Your task to perform on an android device: Go to accessibility settings Image 0: 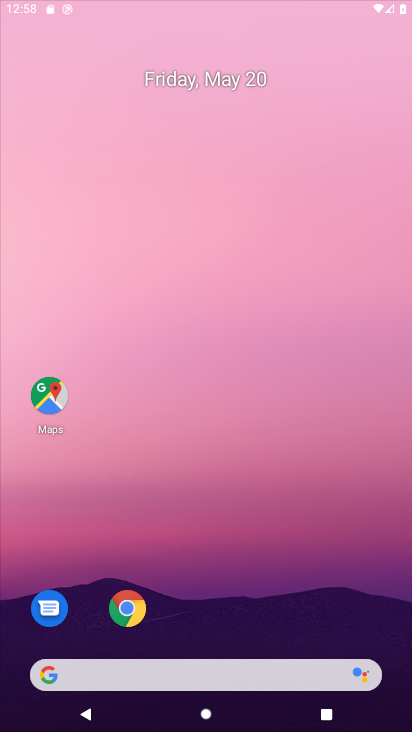
Step 0: click (122, 609)
Your task to perform on an android device: Go to accessibility settings Image 1: 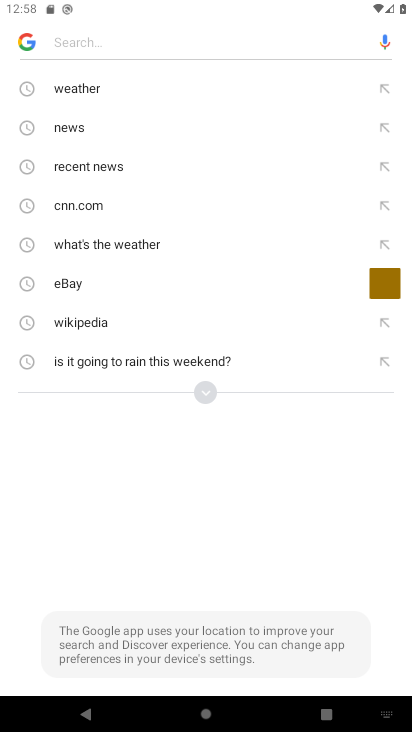
Step 1: press home button
Your task to perform on an android device: Go to accessibility settings Image 2: 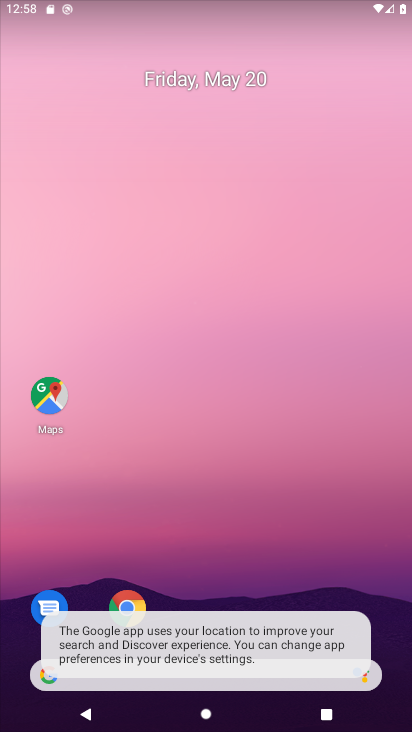
Step 2: drag from (285, 444) to (308, 123)
Your task to perform on an android device: Go to accessibility settings Image 3: 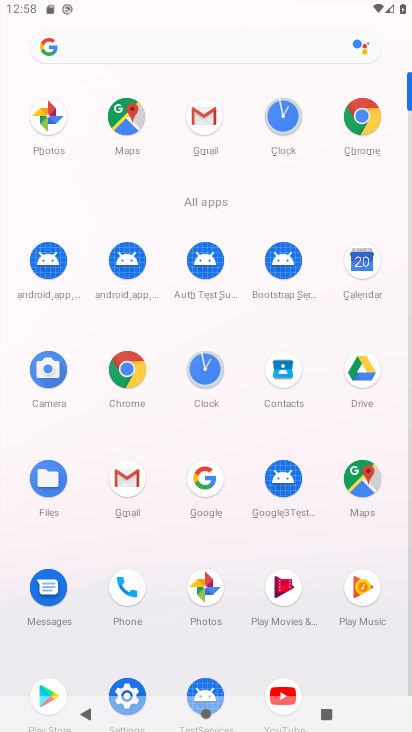
Step 3: click (138, 684)
Your task to perform on an android device: Go to accessibility settings Image 4: 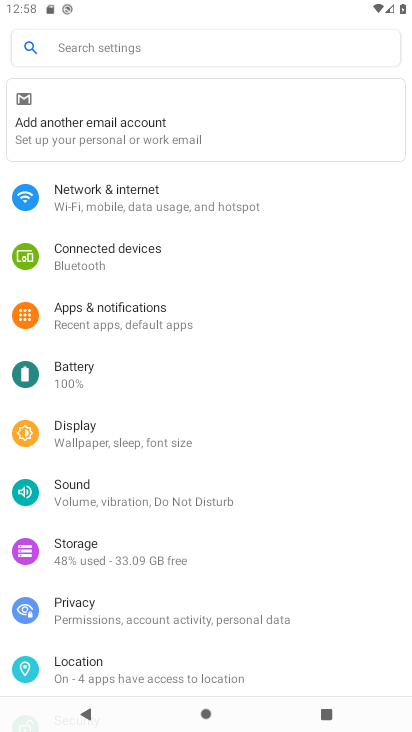
Step 4: drag from (221, 621) to (216, 204)
Your task to perform on an android device: Go to accessibility settings Image 5: 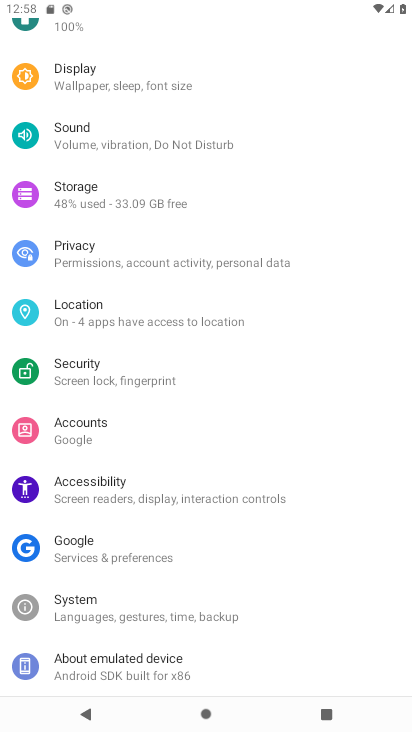
Step 5: click (120, 509)
Your task to perform on an android device: Go to accessibility settings Image 6: 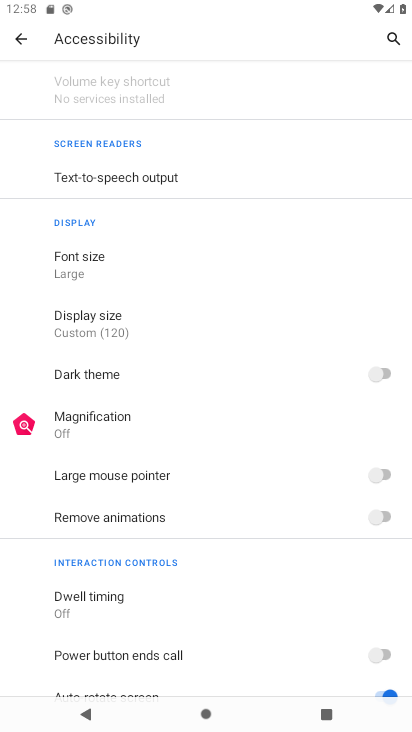
Step 6: task complete